Your task to perform on an android device: Go to battery settings Image 0: 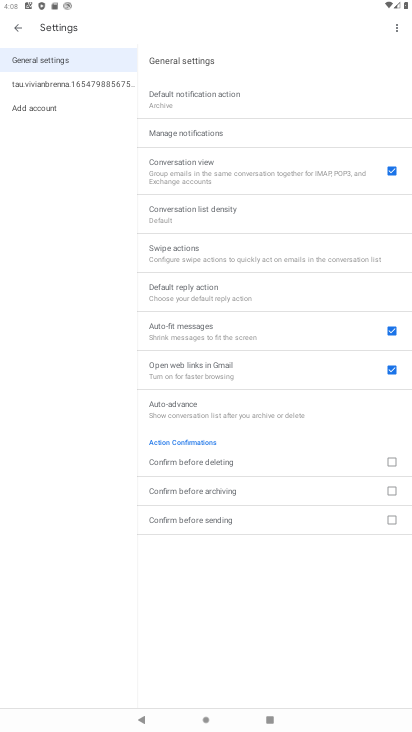
Step 0: press home button
Your task to perform on an android device: Go to battery settings Image 1: 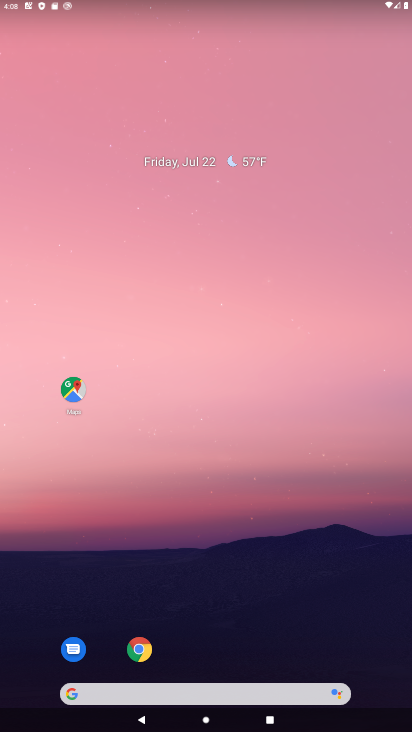
Step 1: drag from (42, 692) to (191, 266)
Your task to perform on an android device: Go to battery settings Image 2: 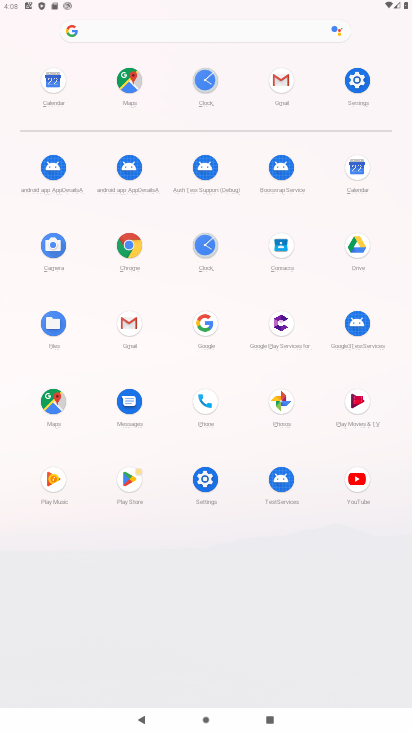
Step 2: click (217, 480)
Your task to perform on an android device: Go to battery settings Image 3: 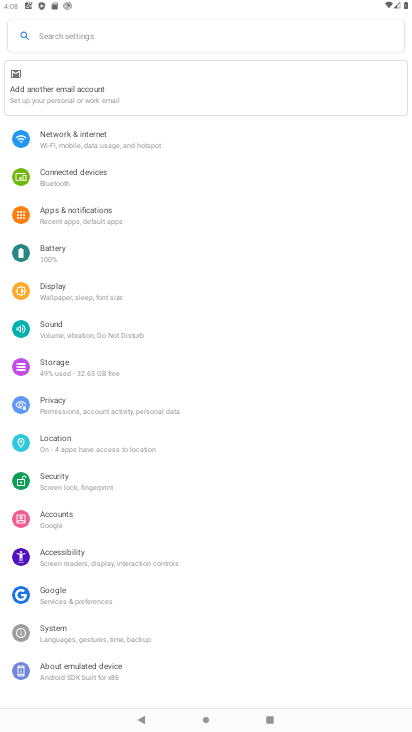
Step 3: click (68, 247)
Your task to perform on an android device: Go to battery settings Image 4: 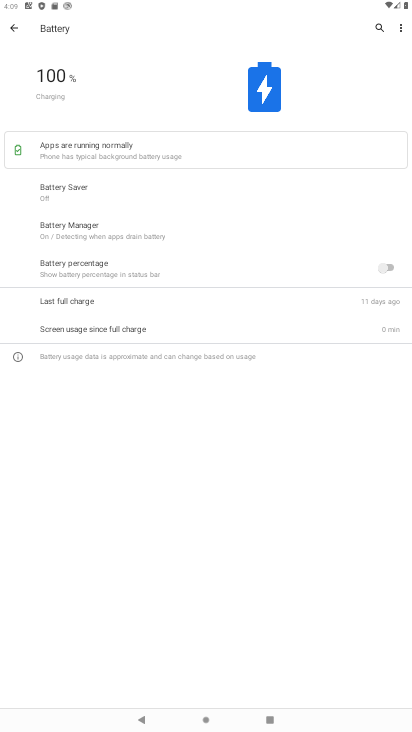
Step 4: task complete